Your task to perform on an android device: read, delete, or share a saved page in the chrome app Image 0: 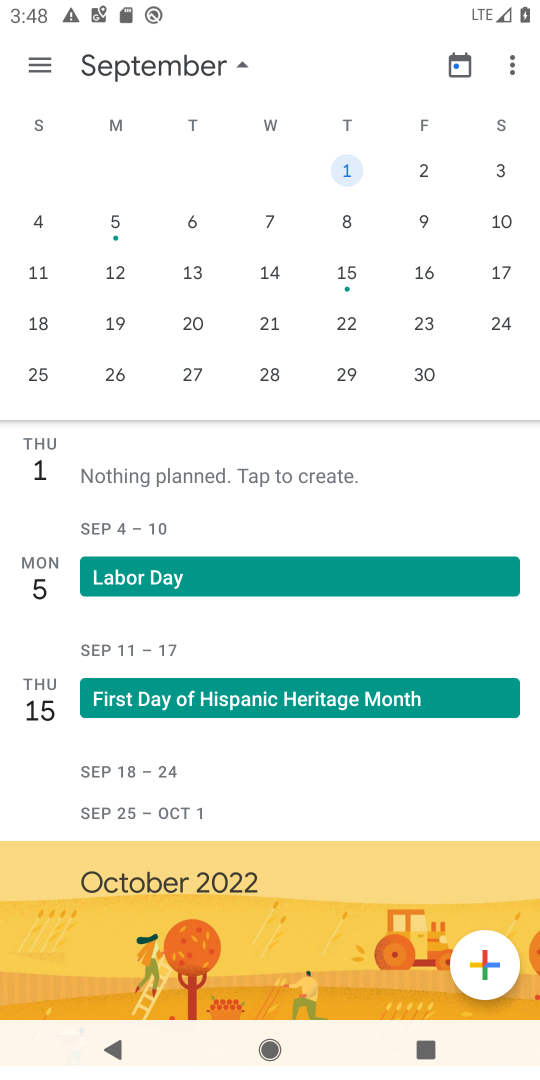
Step 0: press back button
Your task to perform on an android device: read, delete, or share a saved page in the chrome app Image 1: 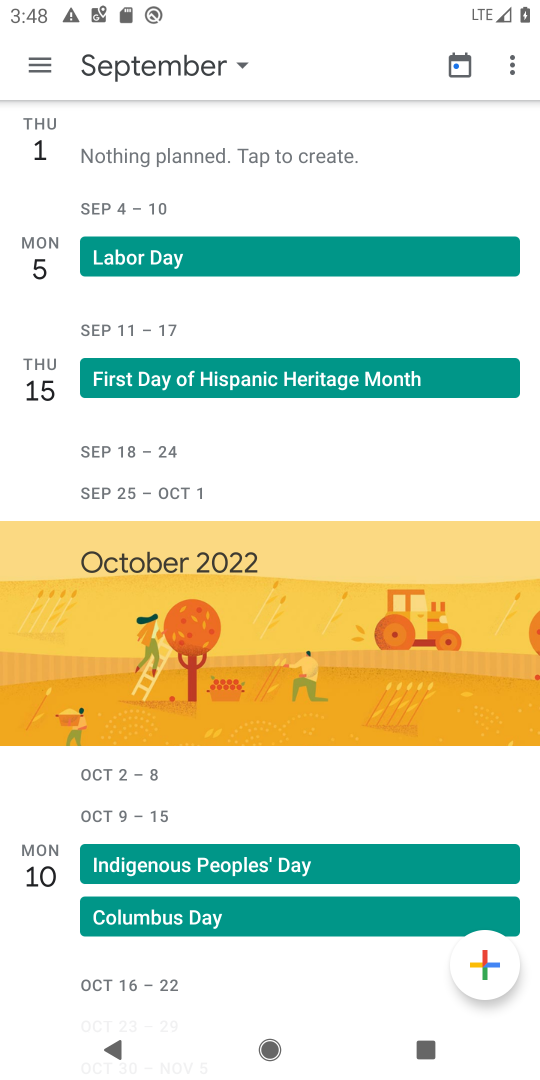
Step 1: press back button
Your task to perform on an android device: read, delete, or share a saved page in the chrome app Image 2: 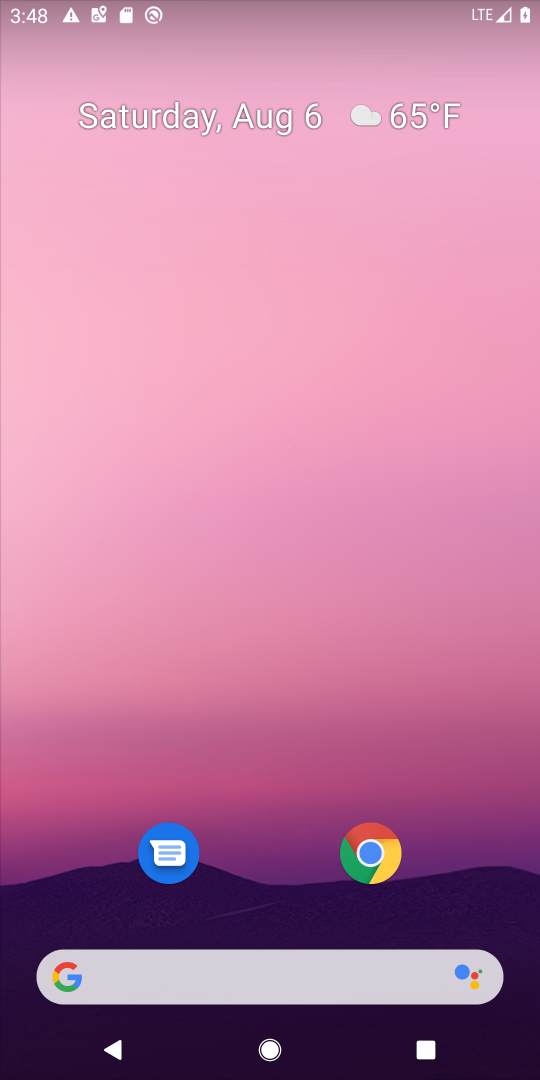
Step 2: click (365, 852)
Your task to perform on an android device: read, delete, or share a saved page in the chrome app Image 3: 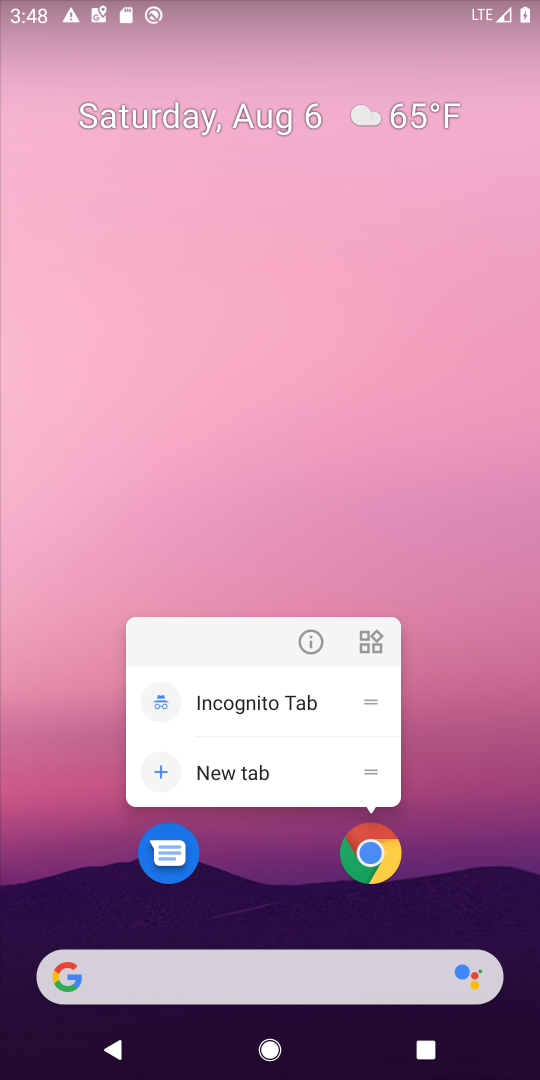
Step 3: click (374, 860)
Your task to perform on an android device: read, delete, or share a saved page in the chrome app Image 4: 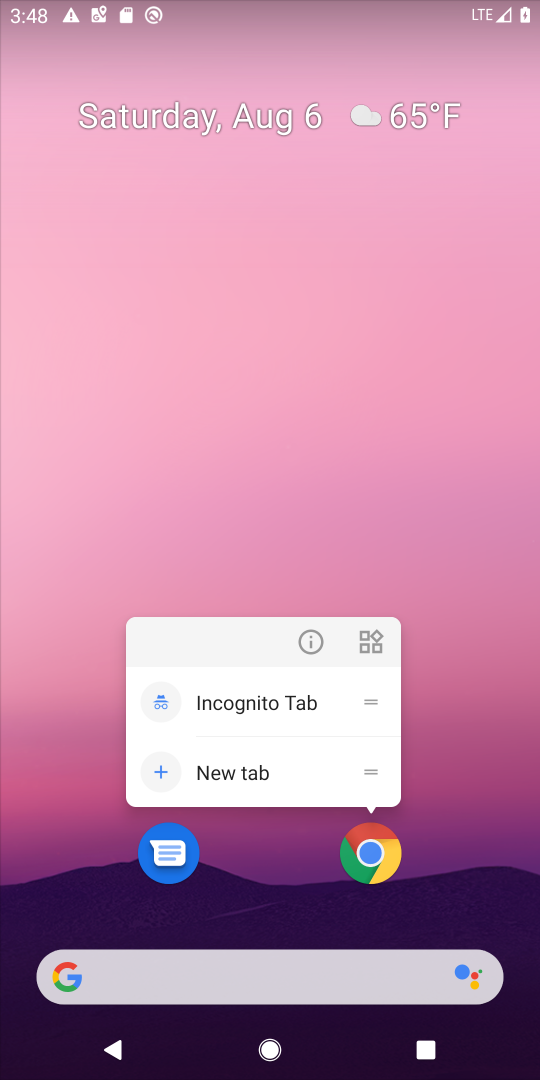
Step 4: click (374, 858)
Your task to perform on an android device: read, delete, or share a saved page in the chrome app Image 5: 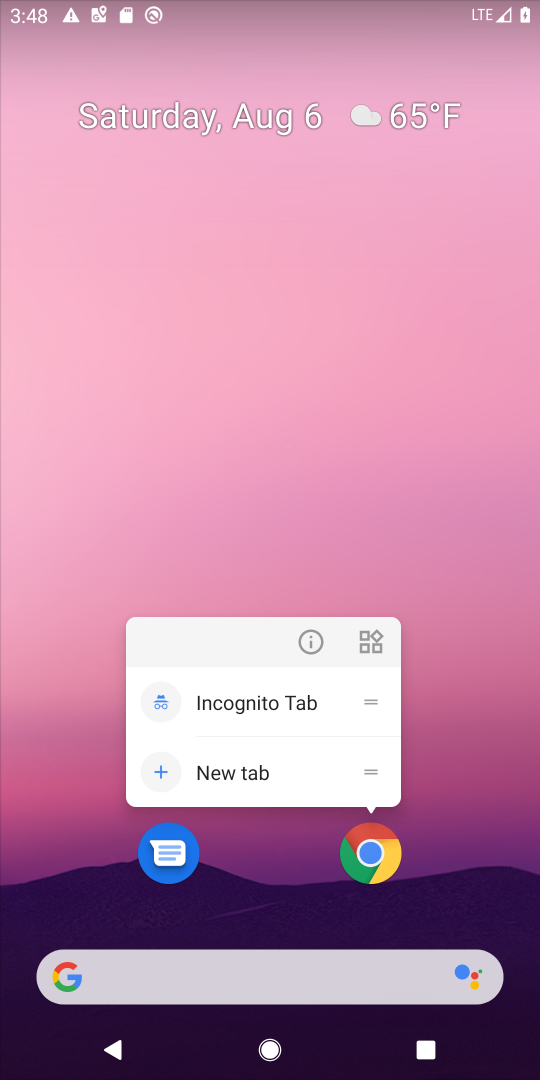
Step 5: click (375, 839)
Your task to perform on an android device: read, delete, or share a saved page in the chrome app Image 6: 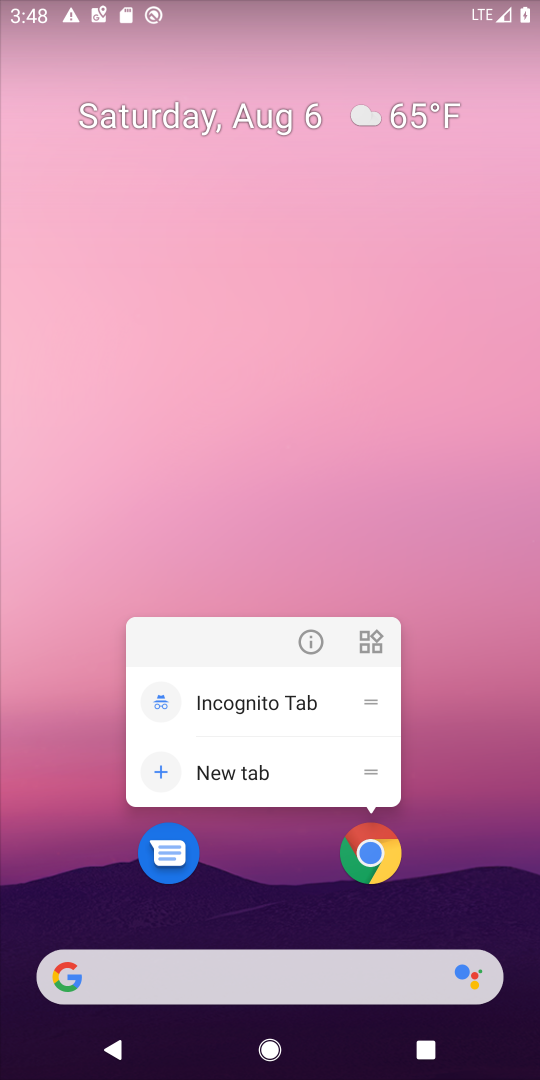
Step 6: click (382, 856)
Your task to perform on an android device: read, delete, or share a saved page in the chrome app Image 7: 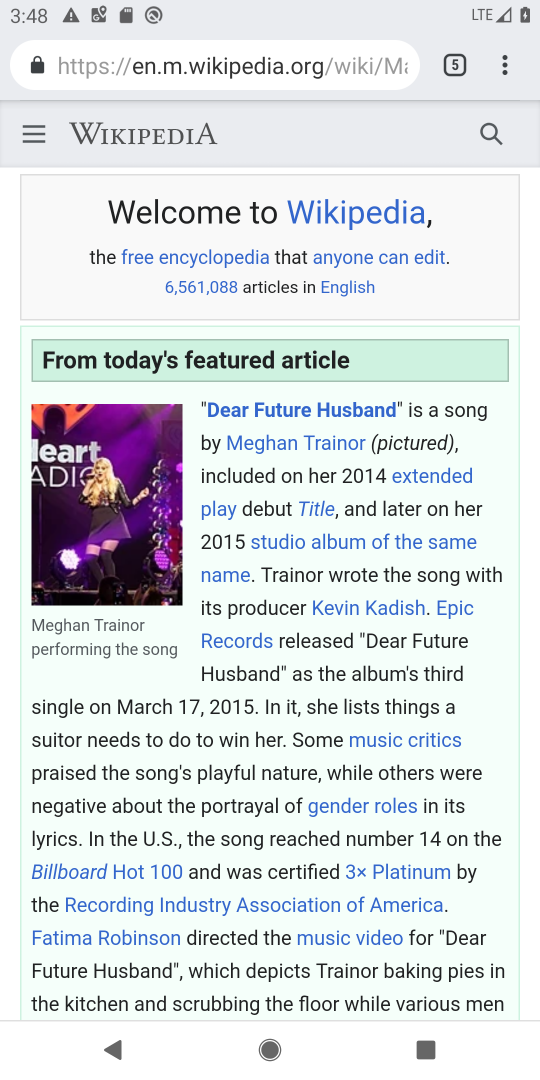
Step 7: drag from (507, 66) to (313, 406)
Your task to perform on an android device: read, delete, or share a saved page in the chrome app Image 8: 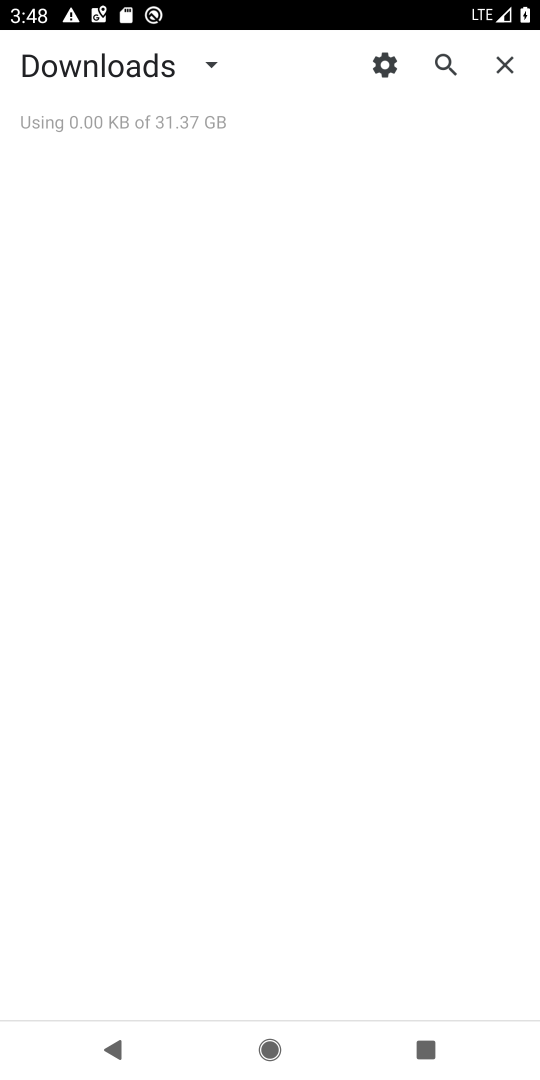
Step 8: click (194, 56)
Your task to perform on an android device: read, delete, or share a saved page in the chrome app Image 9: 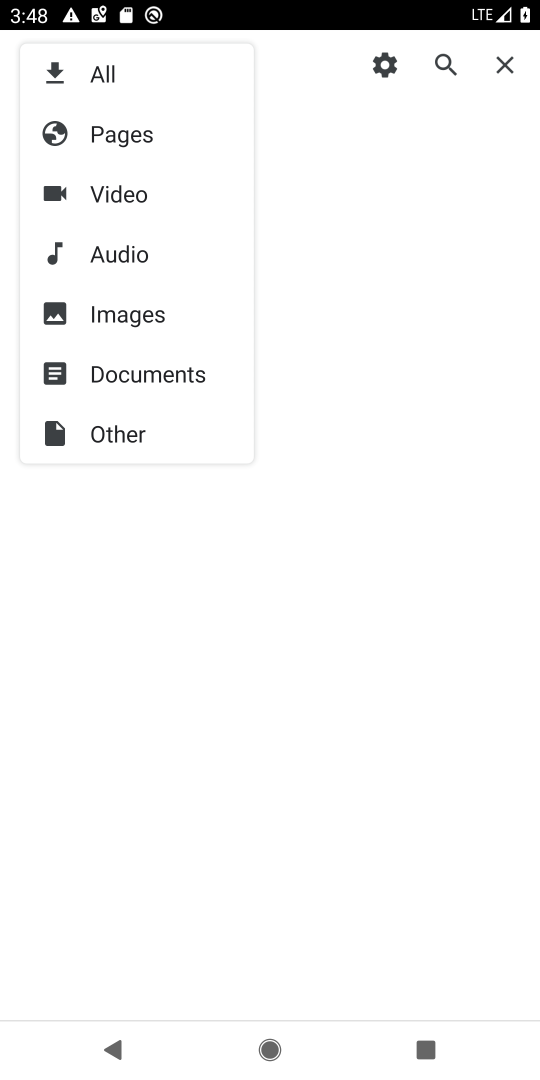
Step 9: click (129, 139)
Your task to perform on an android device: read, delete, or share a saved page in the chrome app Image 10: 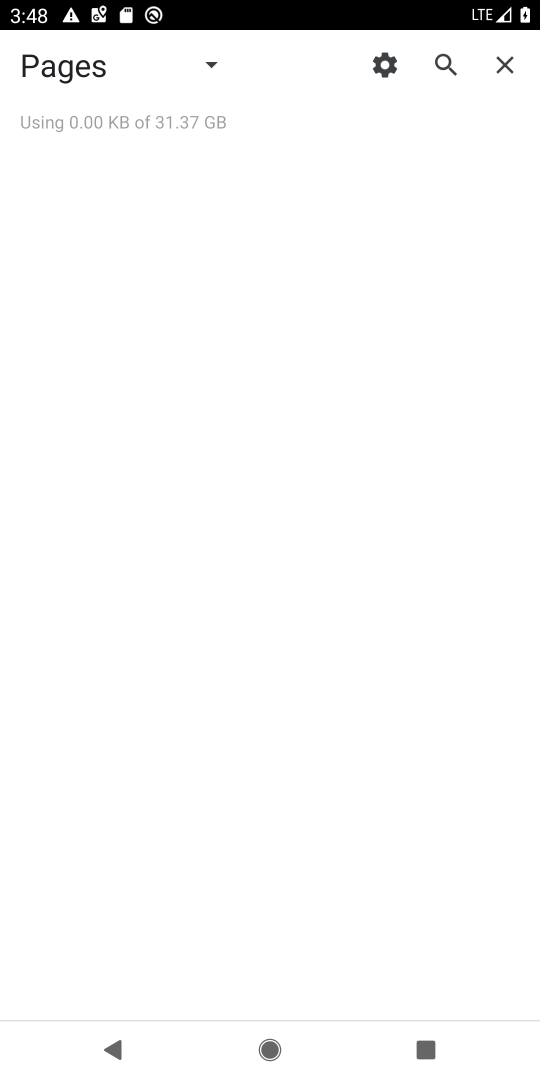
Step 10: task complete